Your task to perform on an android device: star an email in the gmail app Image 0: 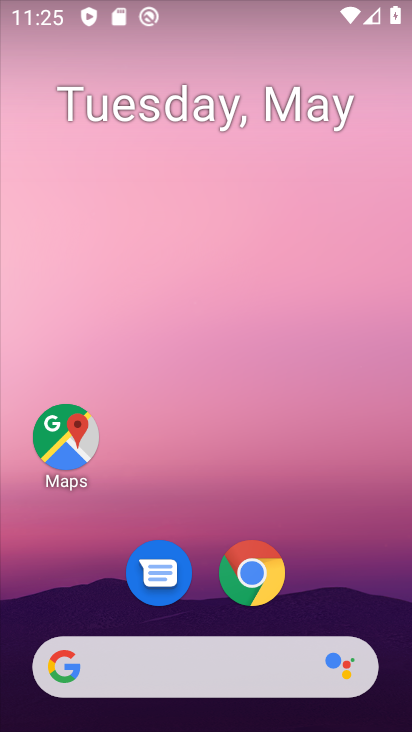
Step 0: drag from (204, 590) to (200, 156)
Your task to perform on an android device: star an email in the gmail app Image 1: 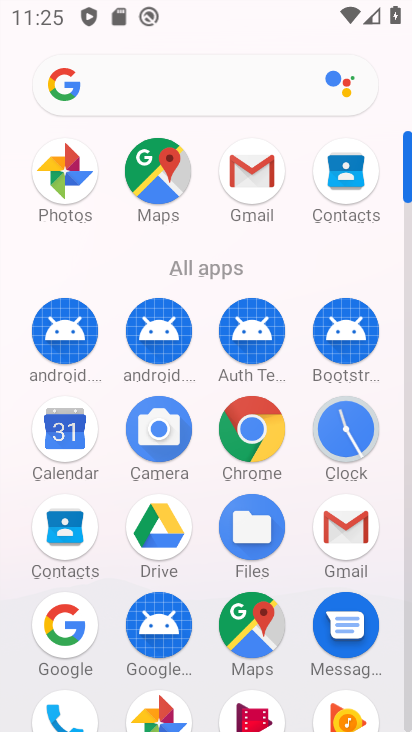
Step 1: click (243, 200)
Your task to perform on an android device: star an email in the gmail app Image 2: 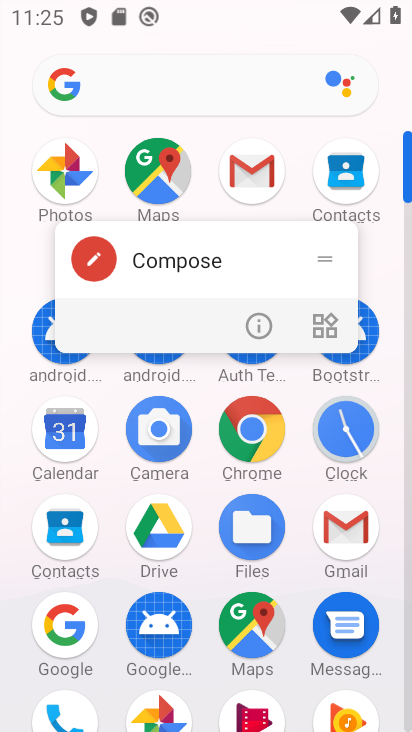
Step 2: click (236, 185)
Your task to perform on an android device: star an email in the gmail app Image 3: 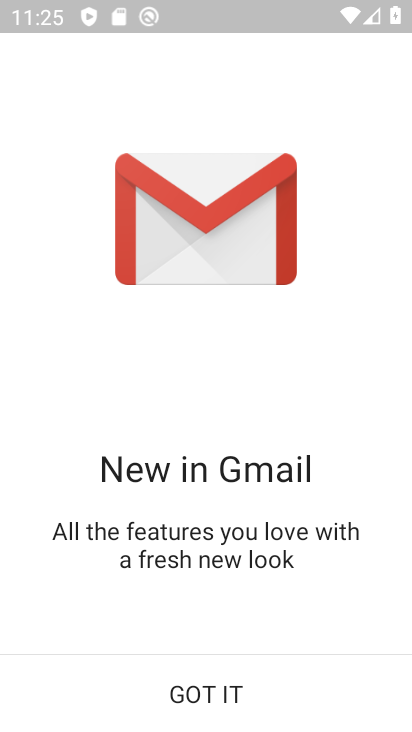
Step 3: click (192, 711)
Your task to perform on an android device: star an email in the gmail app Image 4: 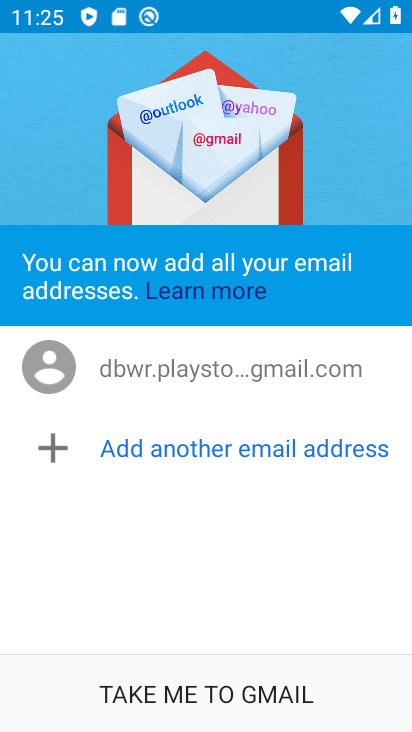
Step 4: click (192, 711)
Your task to perform on an android device: star an email in the gmail app Image 5: 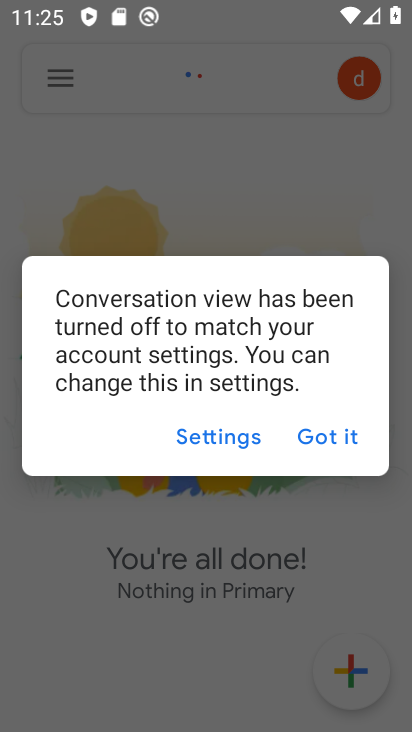
Step 5: click (304, 433)
Your task to perform on an android device: star an email in the gmail app Image 6: 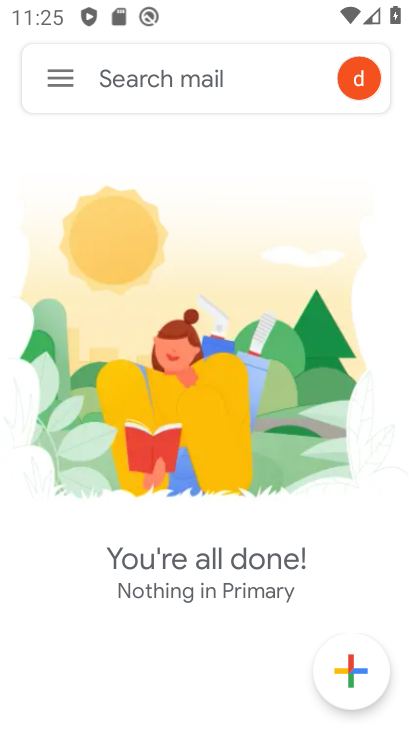
Step 6: click (71, 66)
Your task to perform on an android device: star an email in the gmail app Image 7: 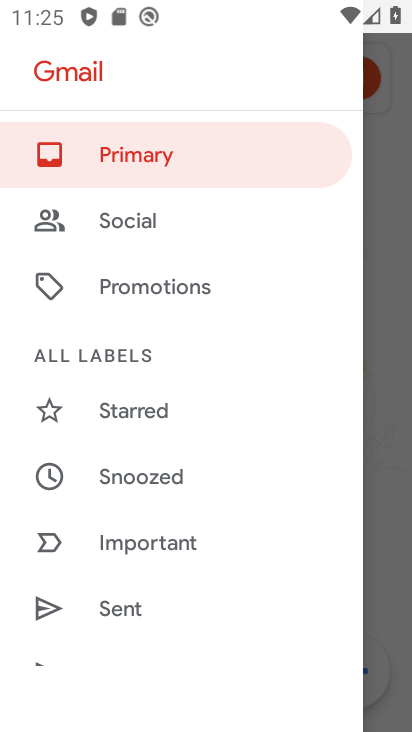
Step 7: drag from (179, 548) to (202, 223)
Your task to perform on an android device: star an email in the gmail app Image 8: 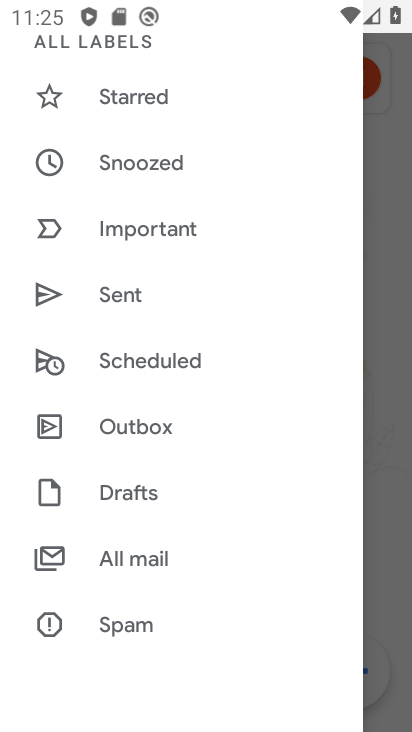
Step 8: click (162, 538)
Your task to perform on an android device: star an email in the gmail app Image 9: 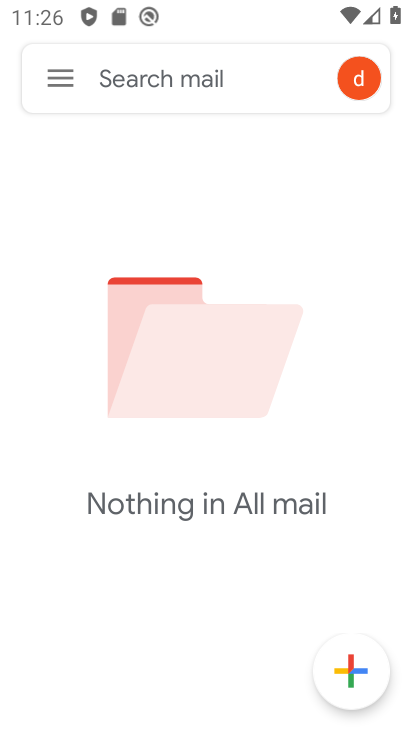
Step 9: task complete